Your task to perform on an android device: Show me popular games on the Play Store Image 0: 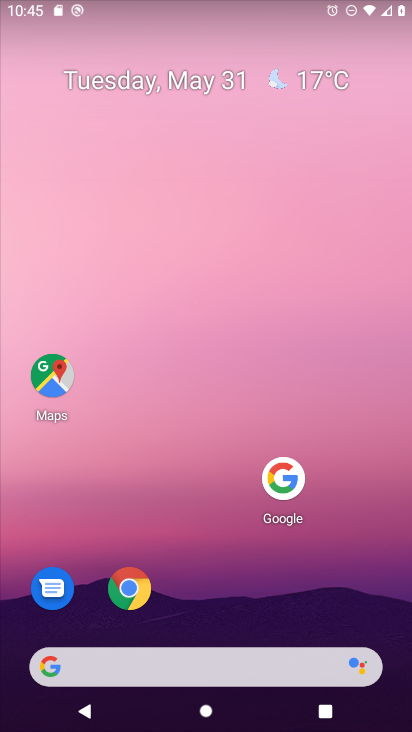
Step 0: drag from (166, 665) to (320, 57)
Your task to perform on an android device: Show me popular games on the Play Store Image 1: 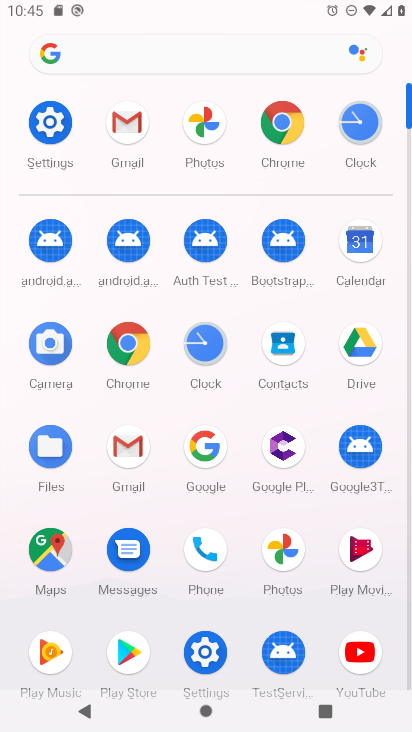
Step 1: drag from (165, 510) to (226, 230)
Your task to perform on an android device: Show me popular games on the Play Store Image 2: 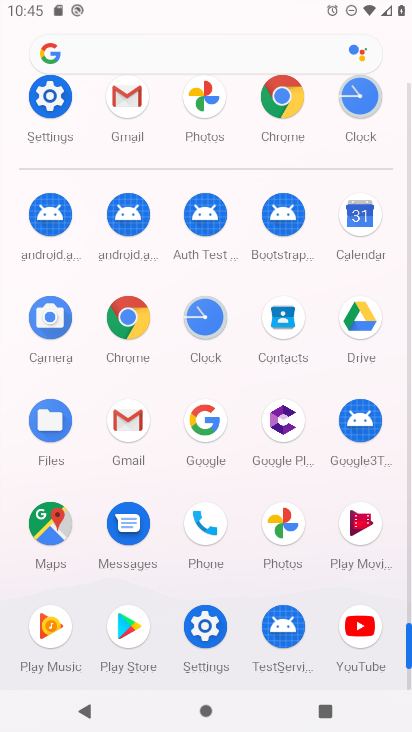
Step 2: click (130, 632)
Your task to perform on an android device: Show me popular games on the Play Store Image 3: 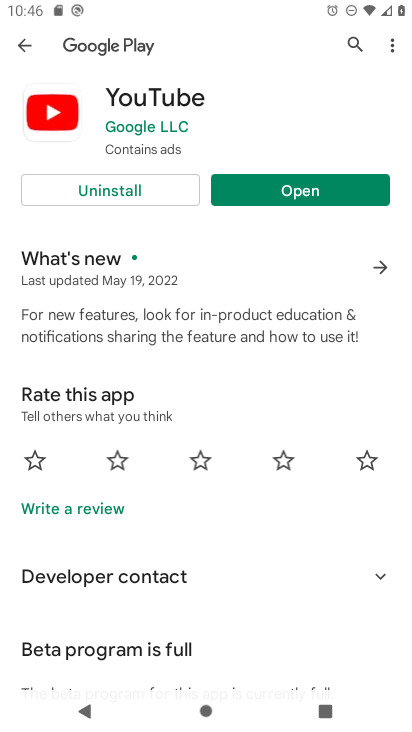
Step 3: click (32, 44)
Your task to perform on an android device: Show me popular games on the Play Store Image 4: 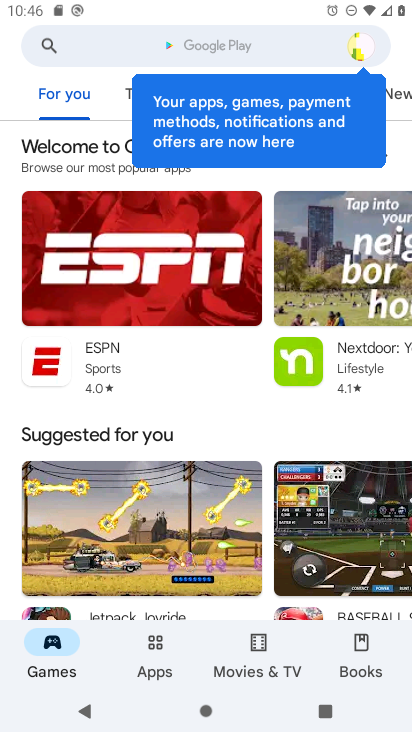
Step 4: drag from (242, 550) to (278, 36)
Your task to perform on an android device: Show me popular games on the Play Store Image 5: 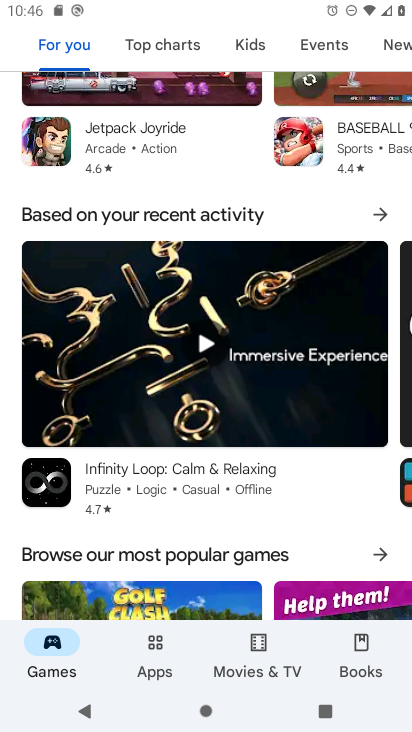
Step 5: click (185, 553)
Your task to perform on an android device: Show me popular games on the Play Store Image 6: 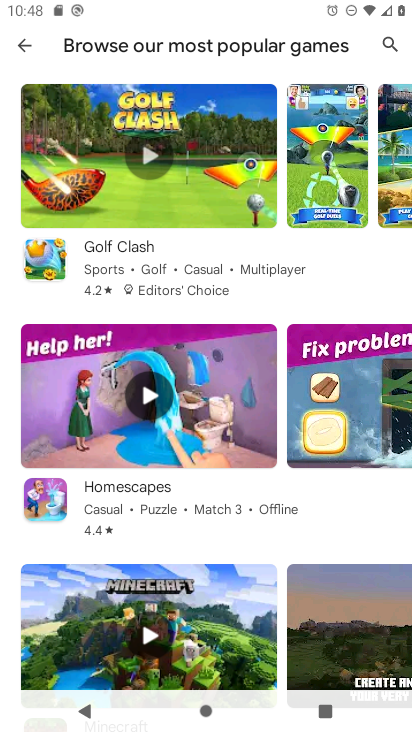
Step 6: task complete